Your task to perform on an android device: Open settings on Google Maps Image 0: 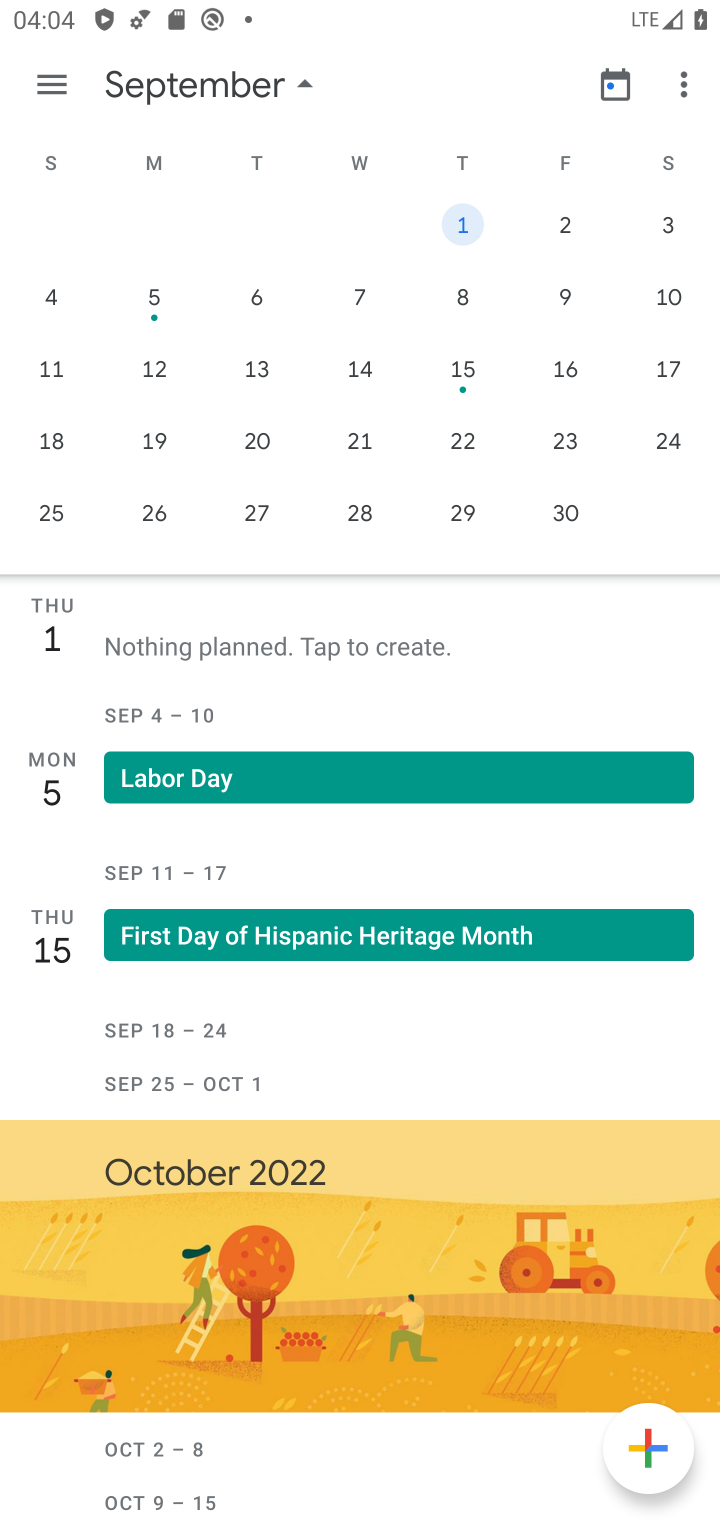
Step 0: press back button
Your task to perform on an android device: Open settings on Google Maps Image 1: 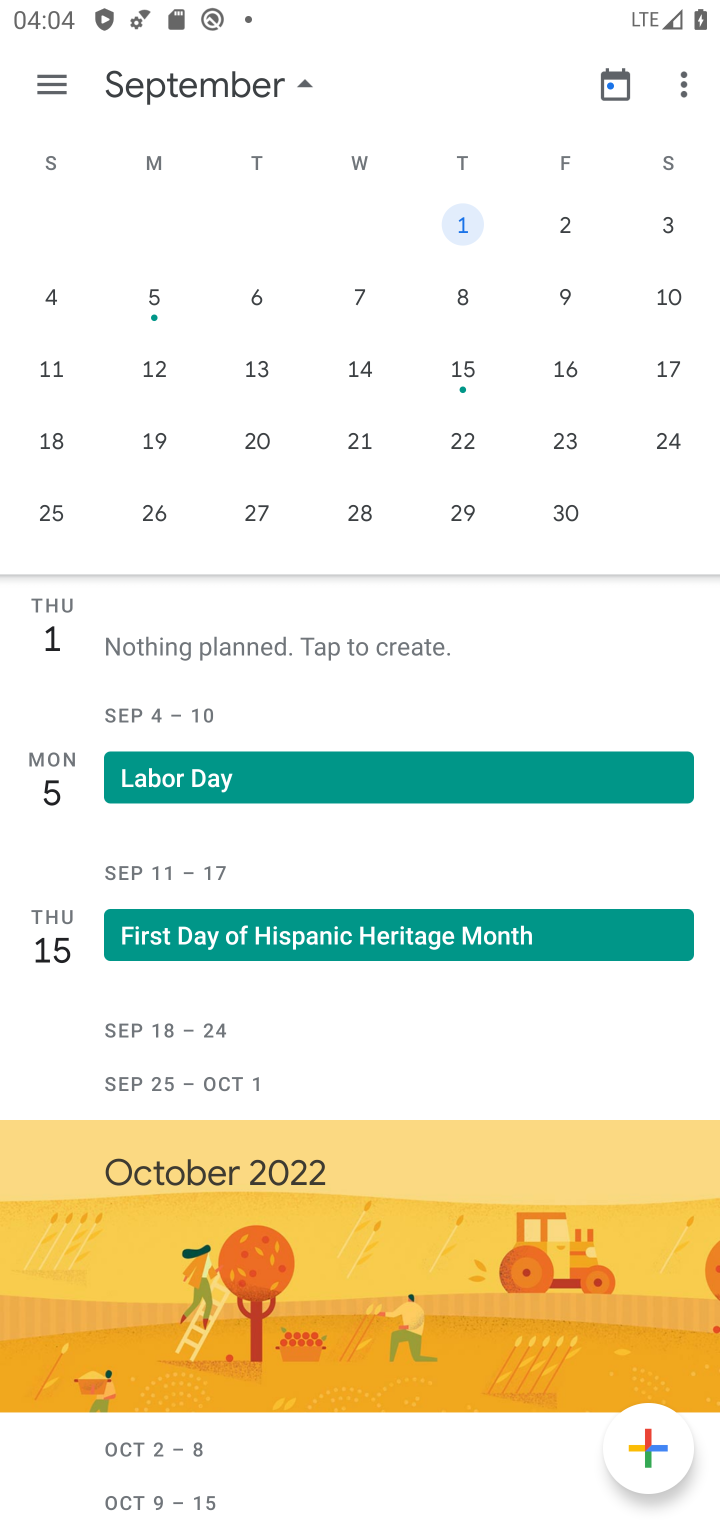
Step 1: press back button
Your task to perform on an android device: Open settings on Google Maps Image 2: 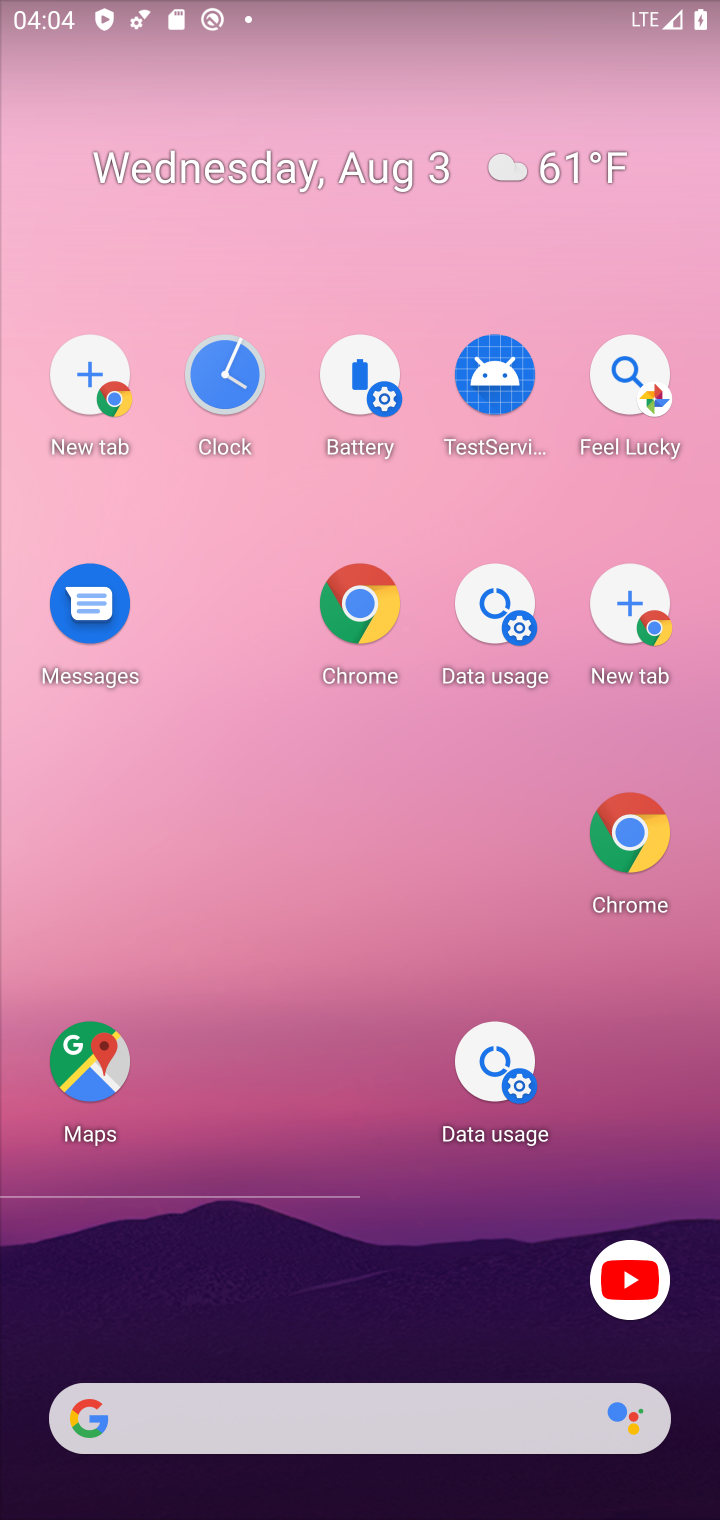
Step 2: click (88, 1051)
Your task to perform on an android device: Open settings on Google Maps Image 3: 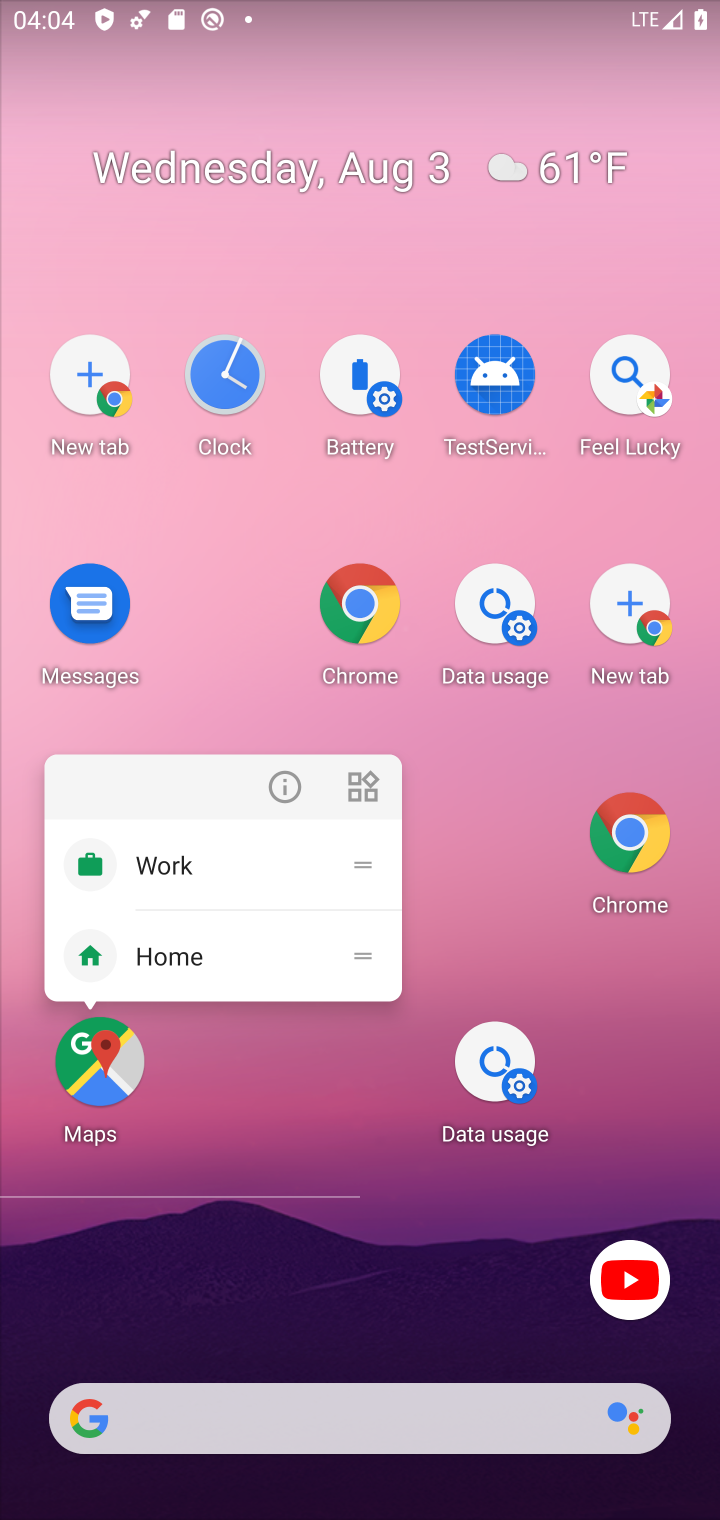
Step 3: click (107, 1020)
Your task to perform on an android device: Open settings on Google Maps Image 4: 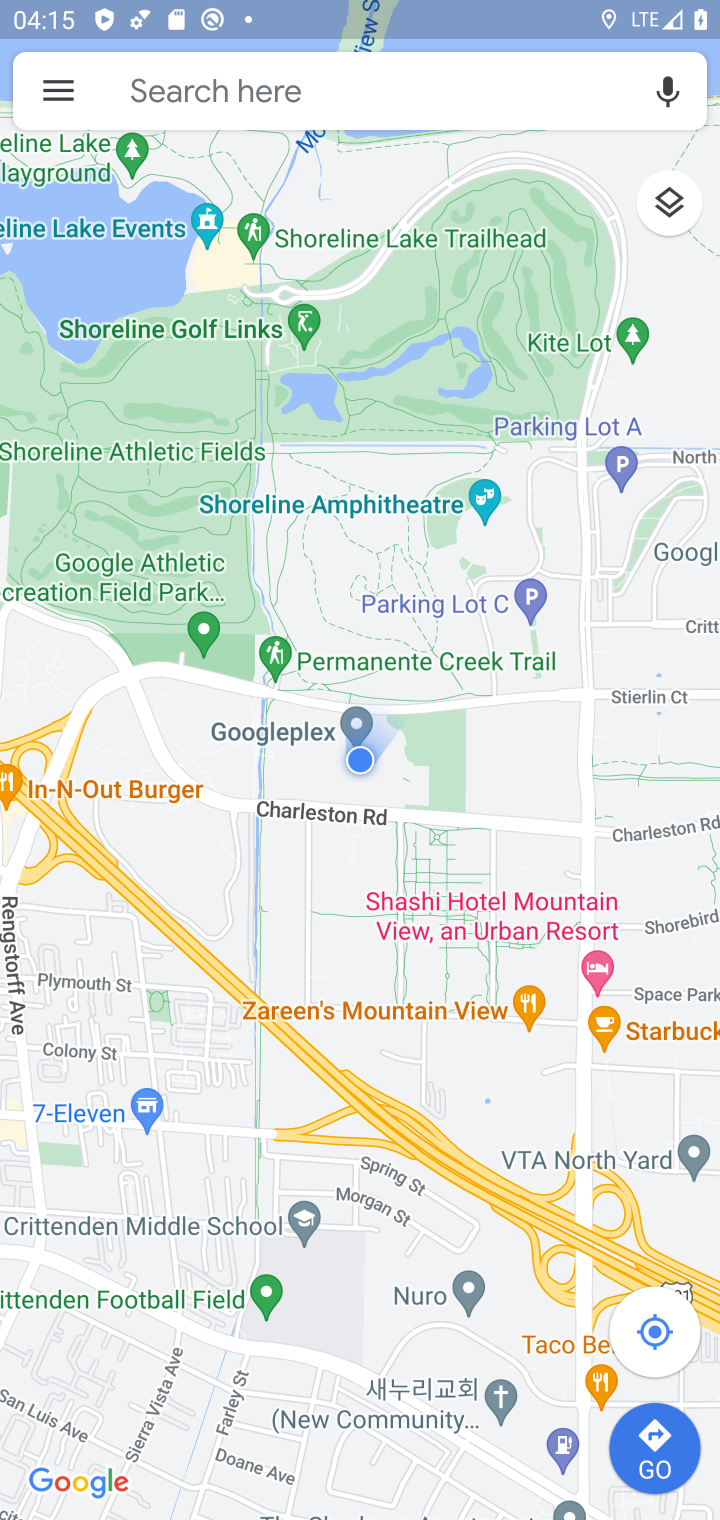
Step 4: task complete